Your task to perform on an android device: Open Google Chrome Image 0: 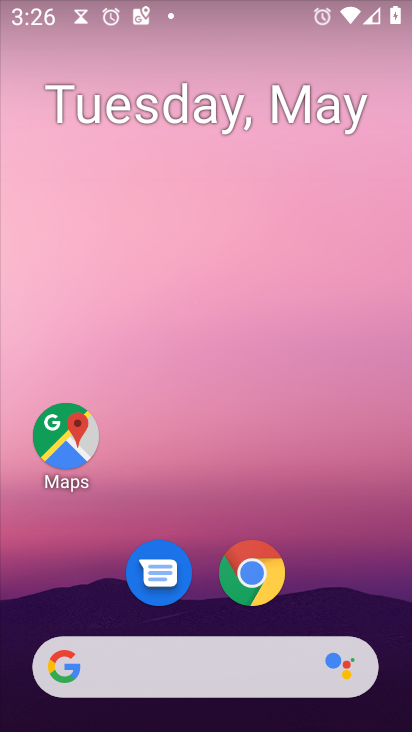
Step 0: drag from (348, 556) to (198, 20)
Your task to perform on an android device: Open Google Chrome Image 1: 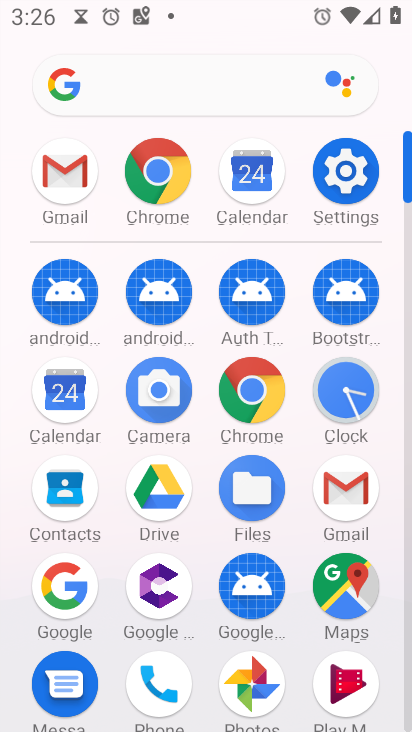
Step 1: drag from (23, 569) to (26, 298)
Your task to perform on an android device: Open Google Chrome Image 2: 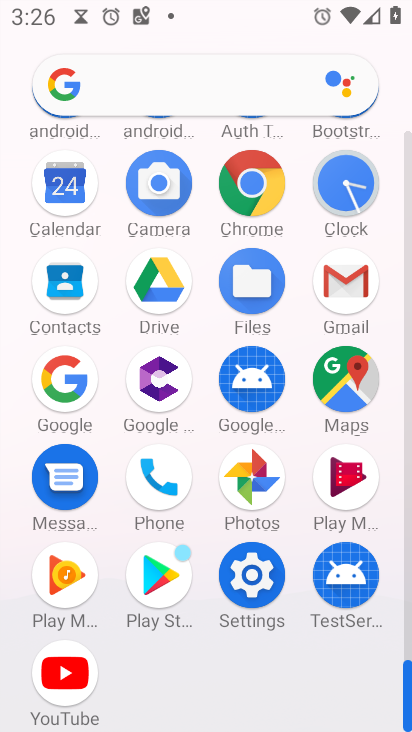
Step 2: click (244, 179)
Your task to perform on an android device: Open Google Chrome Image 3: 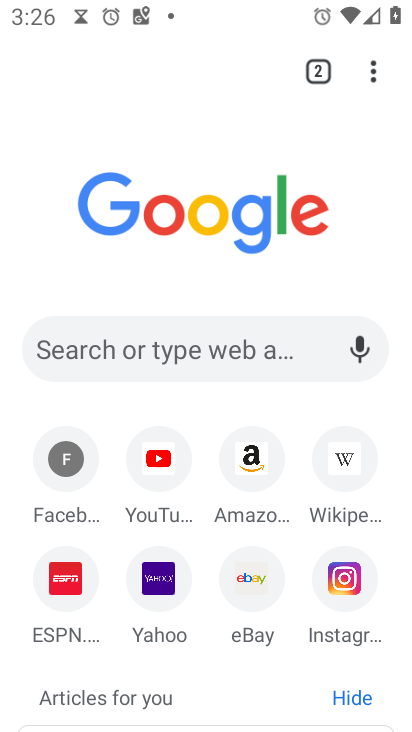
Step 3: task complete